Your task to perform on an android device: open app "McDonald's" Image 0: 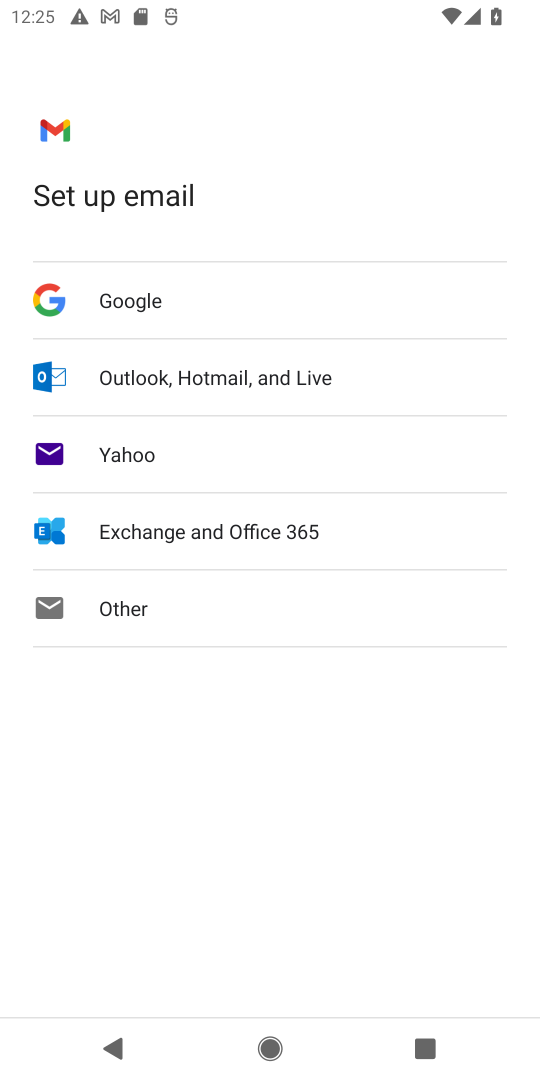
Step 0: press home button
Your task to perform on an android device: open app "McDonald's" Image 1: 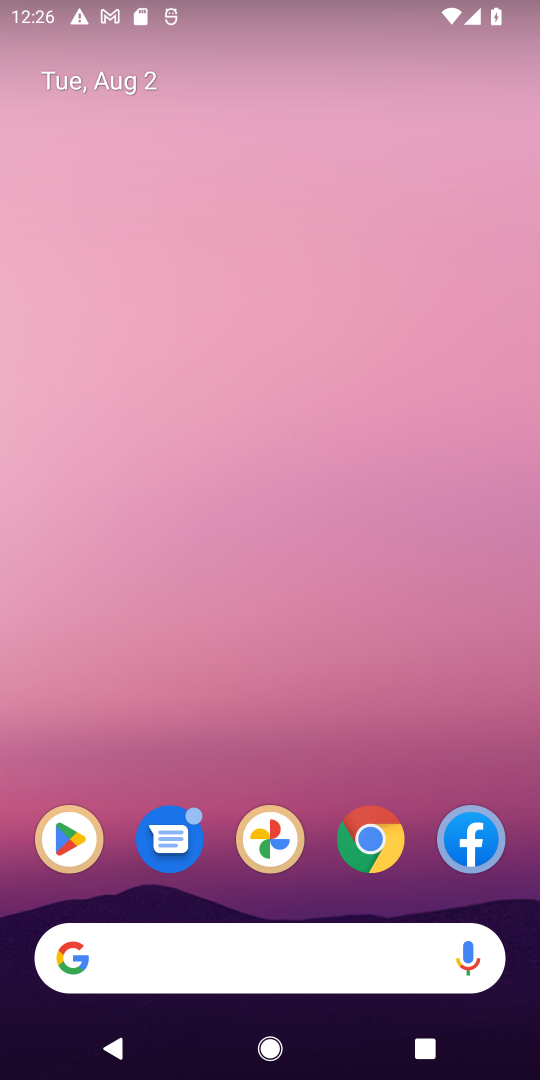
Step 1: click (87, 844)
Your task to perform on an android device: open app "McDonald's" Image 2: 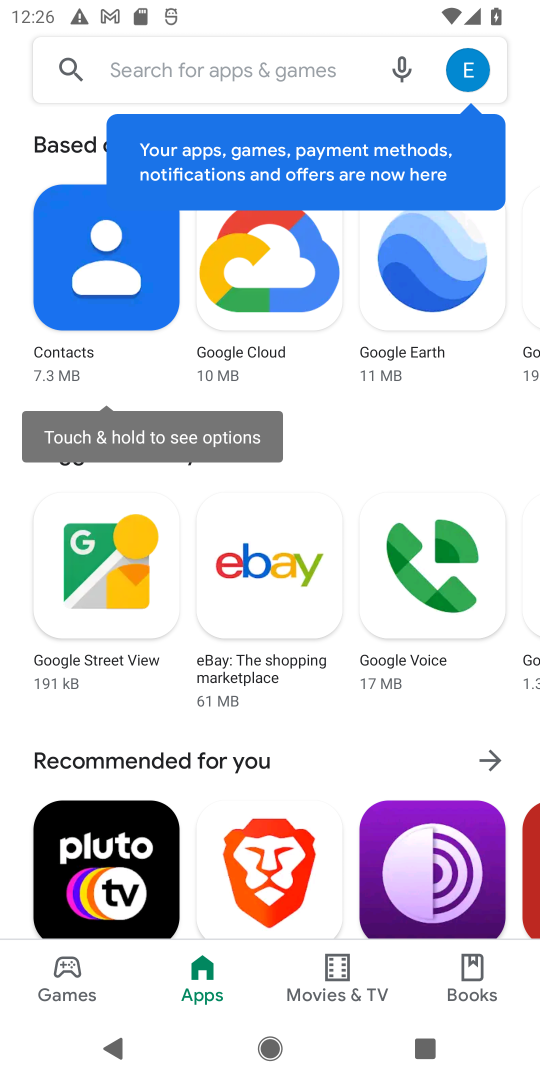
Step 2: click (292, 74)
Your task to perform on an android device: open app "McDonald's" Image 3: 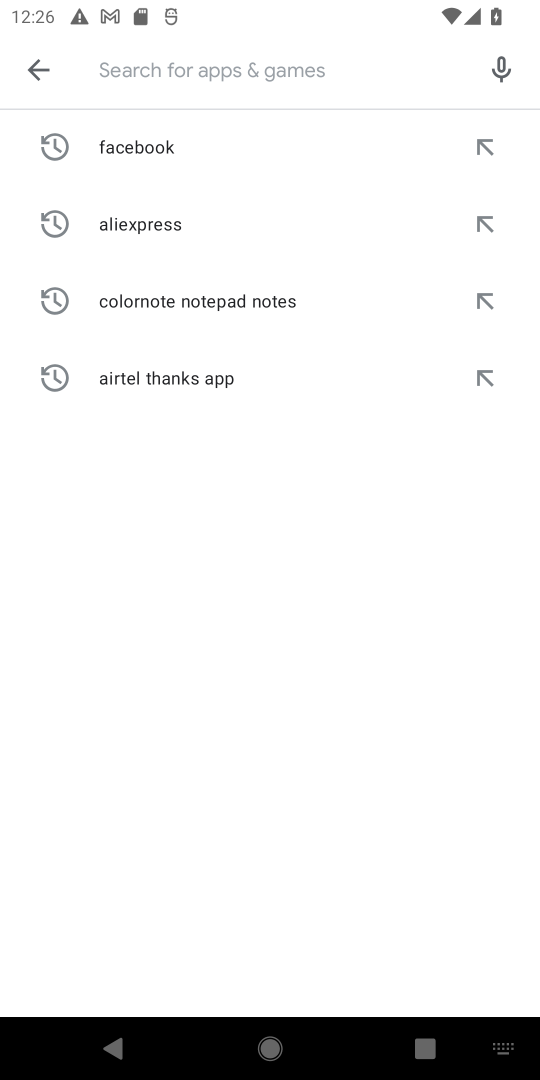
Step 3: type "mcdonalds"
Your task to perform on an android device: open app "McDonald's" Image 4: 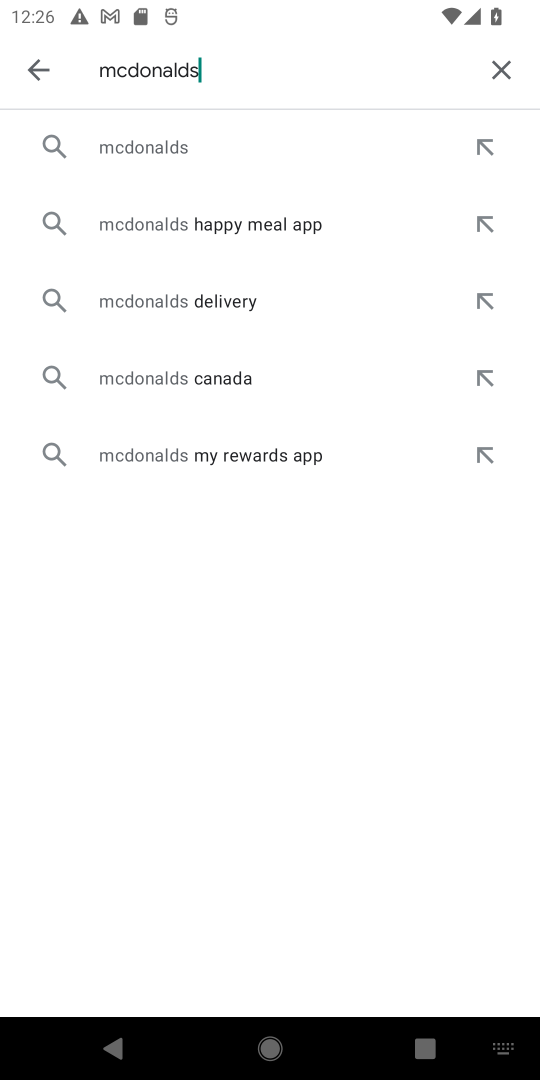
Step 4: click (318, 140)
Your task to perform on an android device: open app "McDonald's" Image 5: 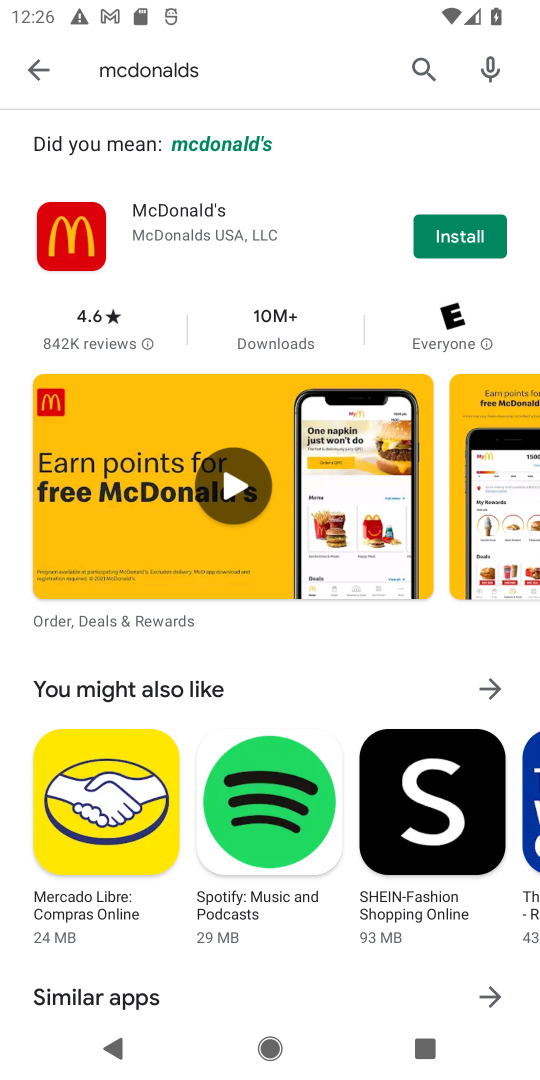
Step 5: task complete